Your task to perform on an android device: When is my next appointment? Image 0: 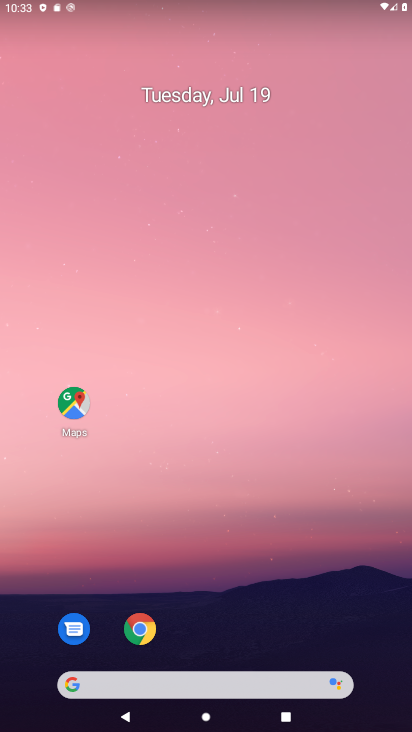
Step 0: drag from (279, 553) to (257, 111)
Your task to perform on an android device: When is my next appointment? Image 1: 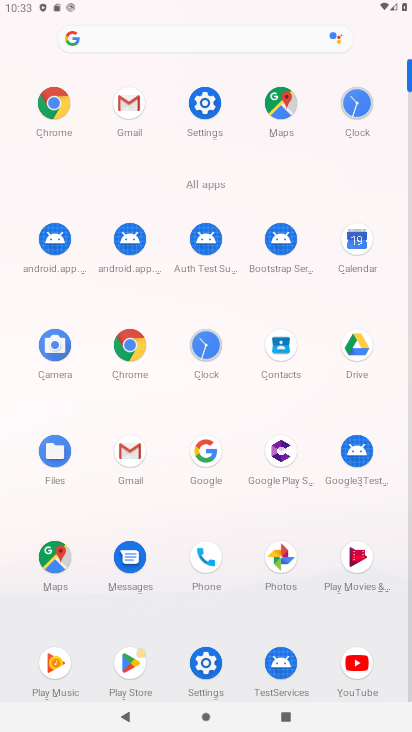
Step 1: click (358, 239)
Your task to perform on an android device: When is my next appointment? Image 2: 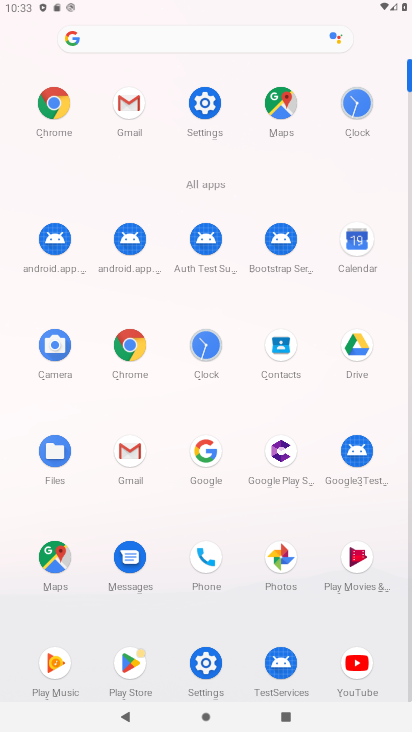
Step 2: click (358, 239)
Your task to perform on an android device: When is my next appointment? Image 3: 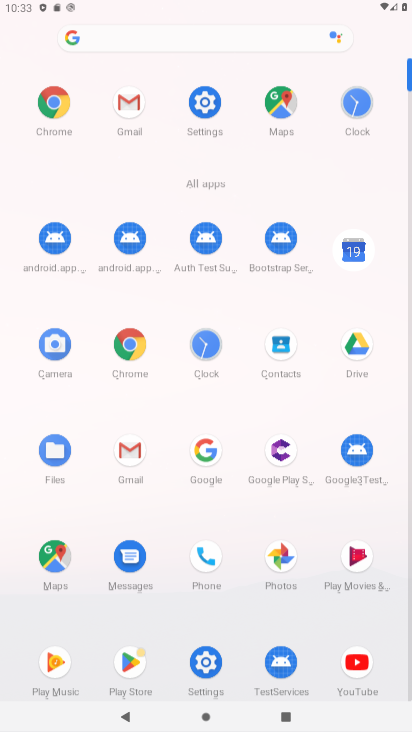
Step 3: click (357, 237)
Your task to perform on an android device: When is my next appointment? Image 4: 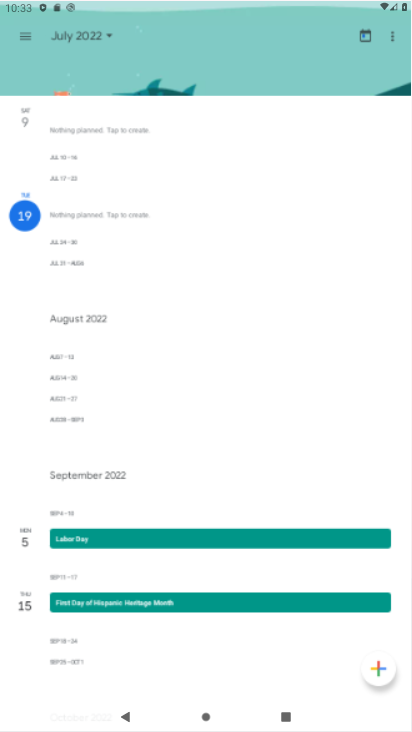
Step 4: click (357, 237)
Your task to perform on an android device: When is my next appointment? Image 5: 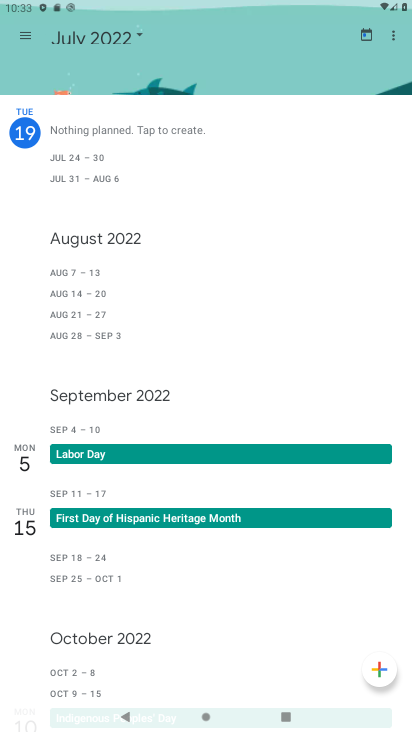
Step 5: click (135, 34)
Your task to perform on an android device: When is my next appointment? Image 6: 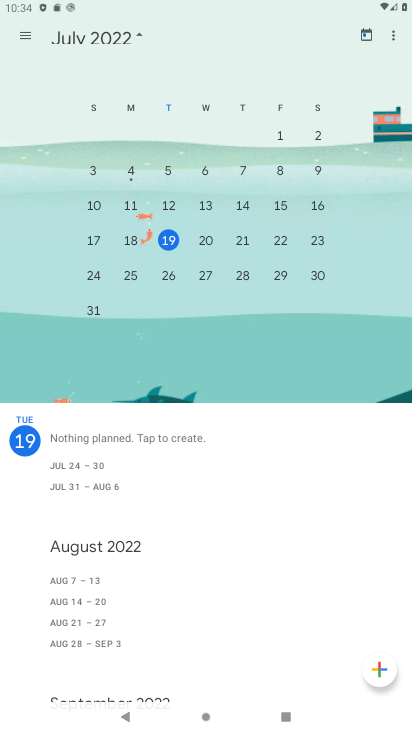
Step 6: task complete